Your task to perform on an android device: turn off picture-in-picture Image 0: 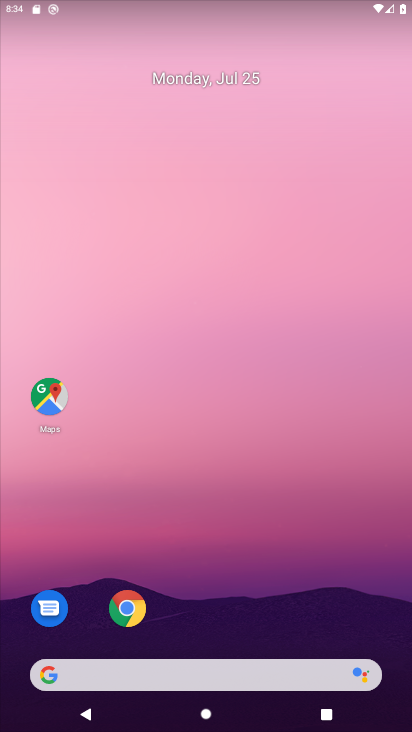
Step 0: click (122, 605)
Your task to perform on an android device: turn off picture-in-picture Image 1: 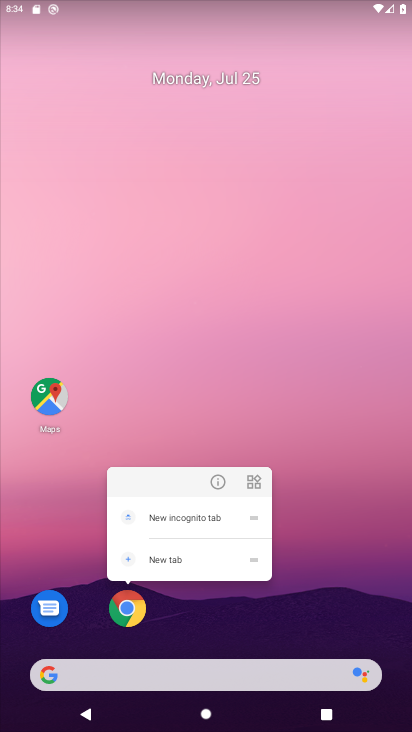
Step 1: click (216, 481)
Your task to perform on an android device: turn off picture-in-picture Image 2: 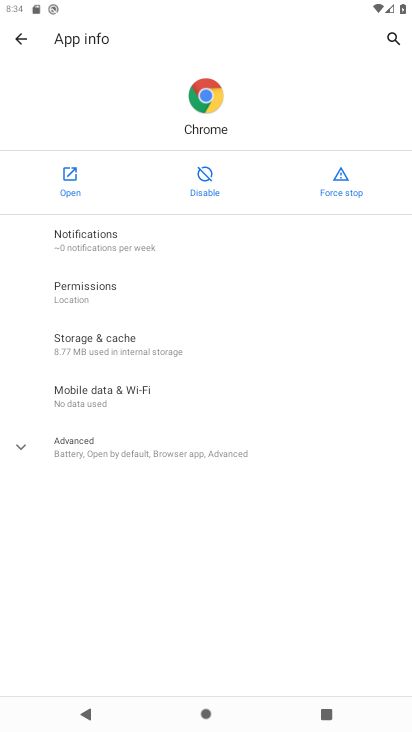
Step 2: click (92, 456)
Your task to perform on an android device: turn off picture-in-picture Image 3: 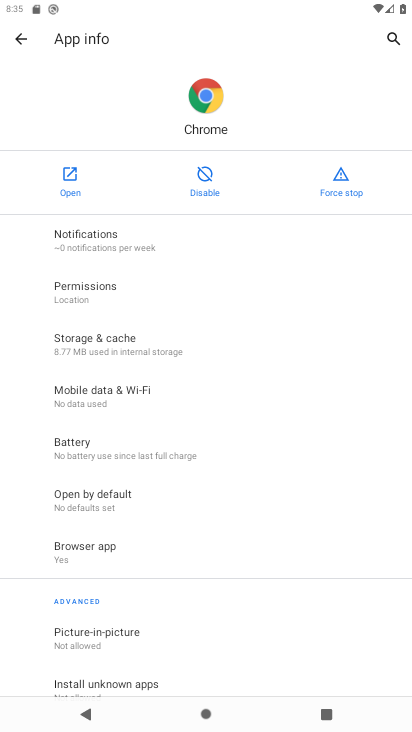
Step 3: click (130, 636)
Your task to perform on an android device: turn off picture-in-picture Image 4: 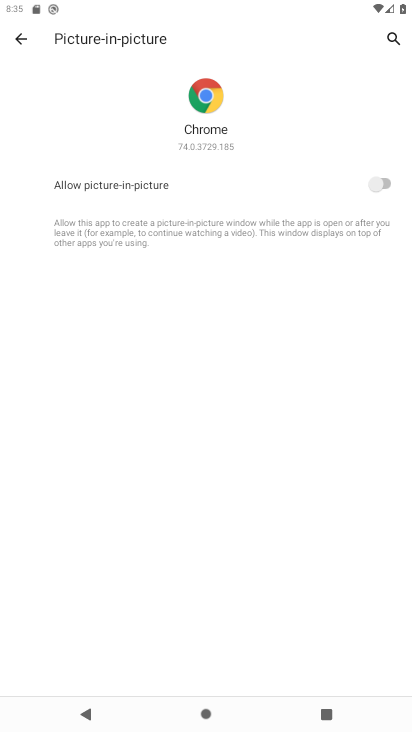
Step 4: task complete